Your task to perform on an android device: check data usage Image 0: 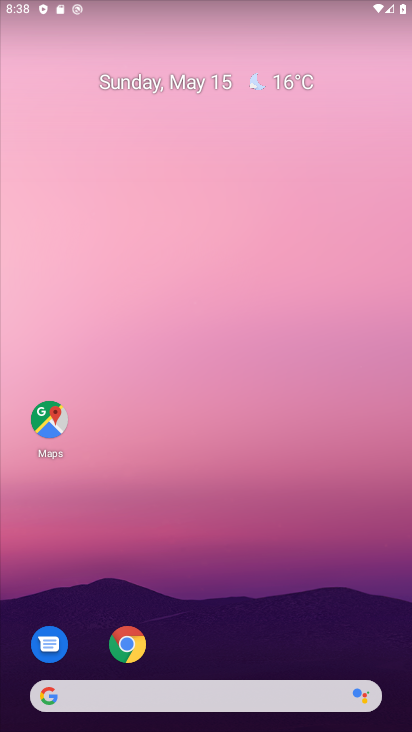
Step 0: drag from (221, 630) to (289, 101)
Your task to perform on an android device: check data usage Image 1: 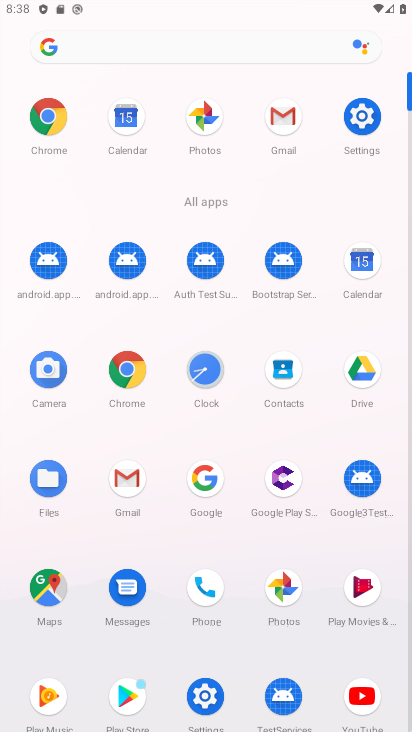
Step 1: click (359, 121)
Your task to perform on an android device: check data usage Image 2: 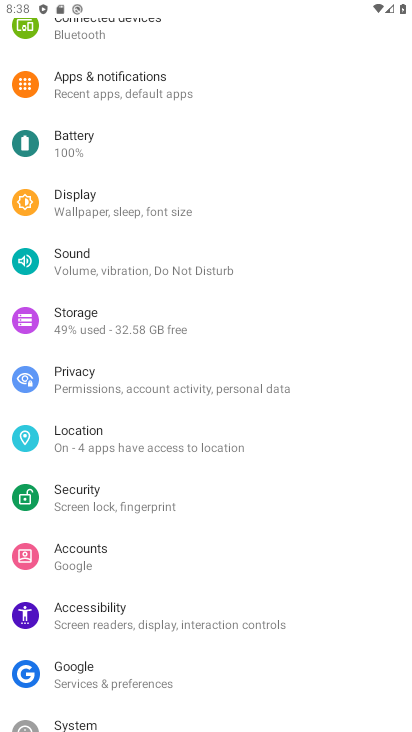
Step 2: drag from (220, 123) to (210, 689)
Your task to perform on an android device: check data usage Image 3: 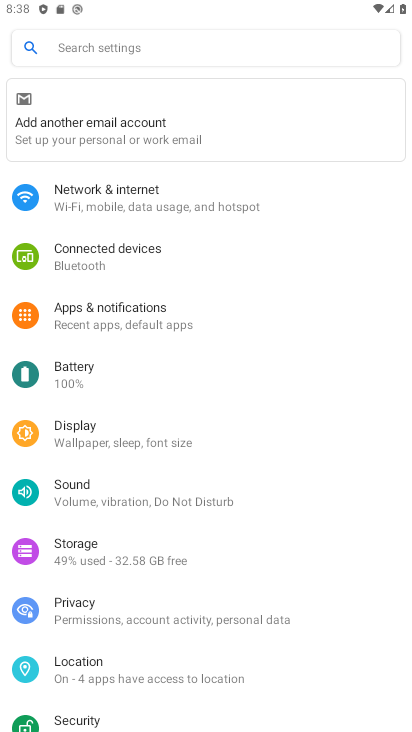
Step 3: click (140, 189)
Your task to perform on an android device: check data usage Image 4: 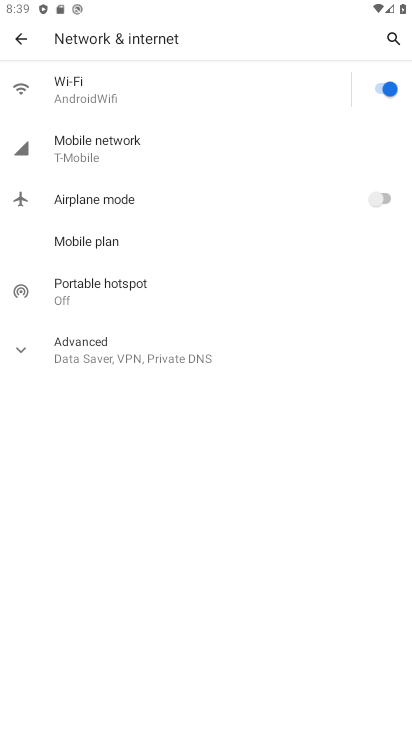
Step 4: click (125, 352)
Your task to perform on an android device: check data usage Image 5: 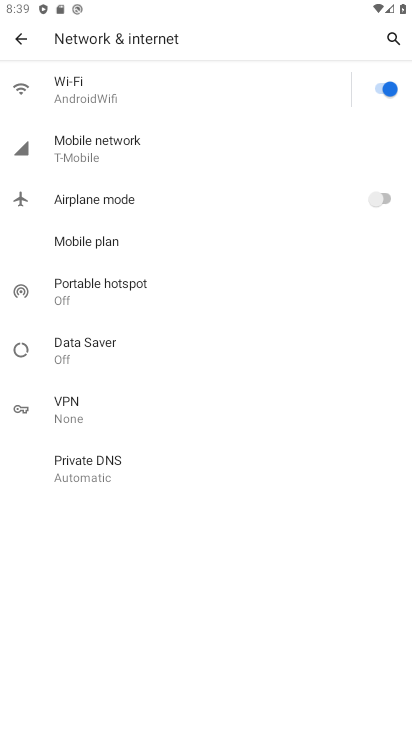
Step 5: click (78, 143)
Your task to perform on an android device: check data usage Image 6: 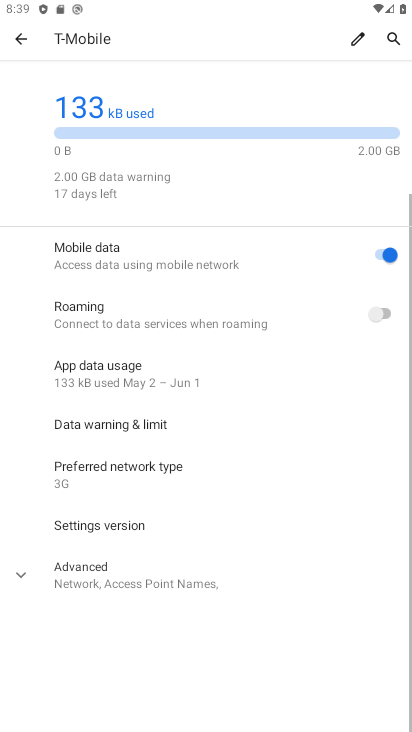
Step 6: click (143, 389)
Your task to perform on an android device: check data usage Image 7: 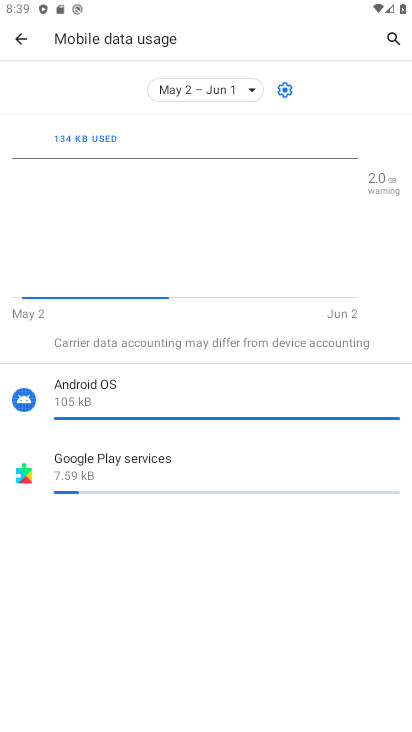
Step 7: task complete